Your task to perform on an android device: Open Youtube and go to the subscriptions tab Image 0: 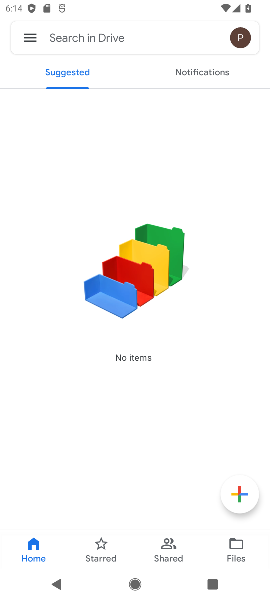
Step 0: press home button
Your task to perform on an android device: Open Youtube and go to the subscriptions tab Image 1: 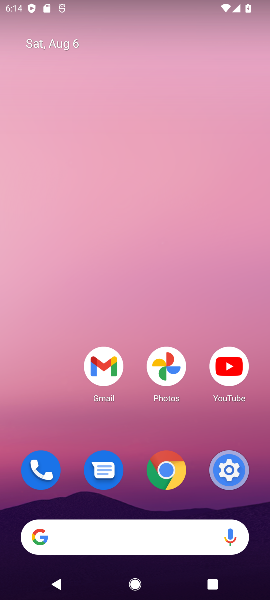
Step 1: drag from (132, 489) to (177, 34)
Your task to perform on an android device: Open Youtube and go to the subscriptions tab Image 2: 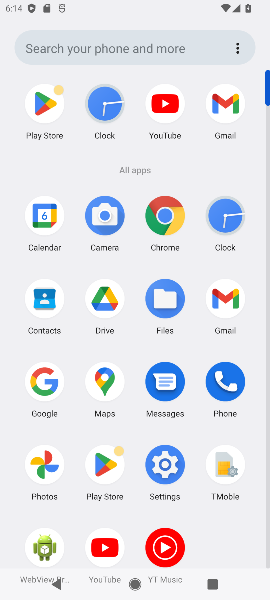
Step 2: click (101, 548)
Your task to perform on an android device: Open Youtube and go to the subscriptions tab Image 3: 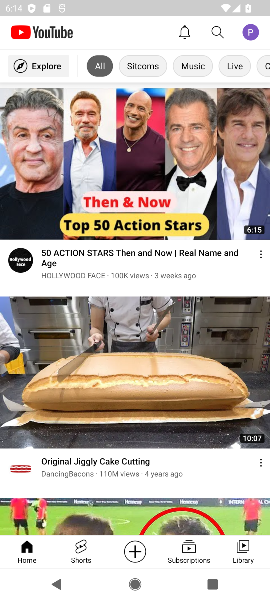
Step 3: click (189, 551)
Your task to perform on an android device: Open Youtube and go to the subscriptions tab Image 4: 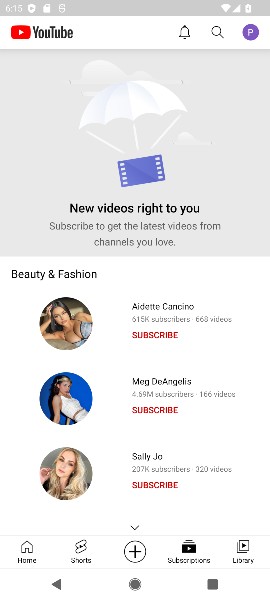
Step 4: task complete